Your task to perform on an android device: open device folders in google photos Image 0: 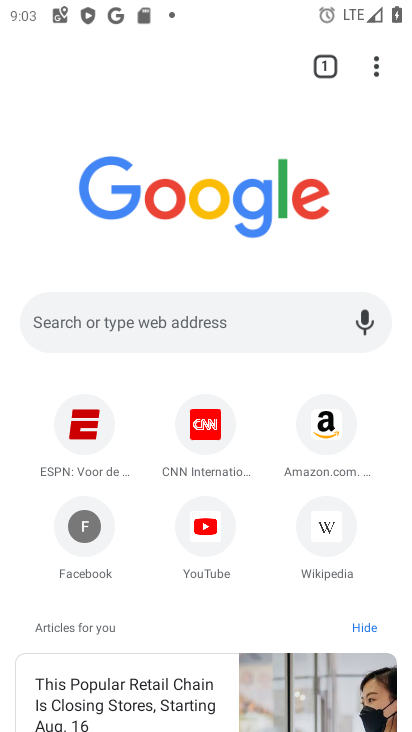
Step 0: press home button
Your task to perform on an android device: open device folders in google photos Image 1: 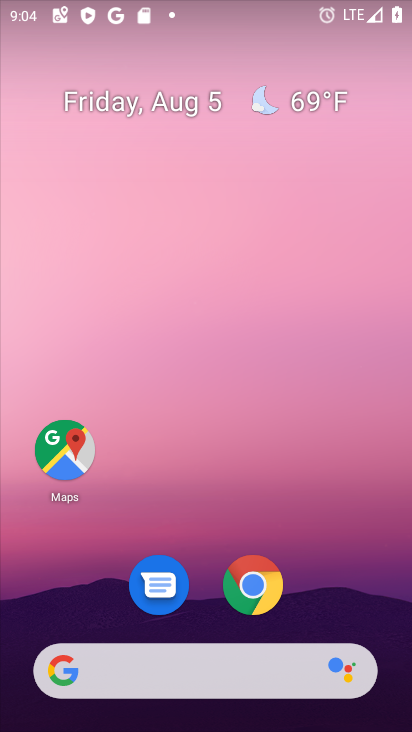
Step 1: drag from (214, 502) to (290, 8)
Your task to perform on an android device: open device folders in google photos Image 2: 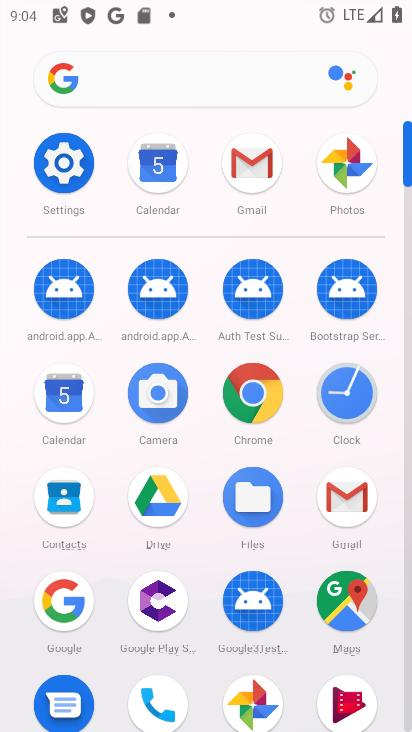
Step 2: click (345, 163)
Your task to perform on an android device: open device folders in google photos Image 3: 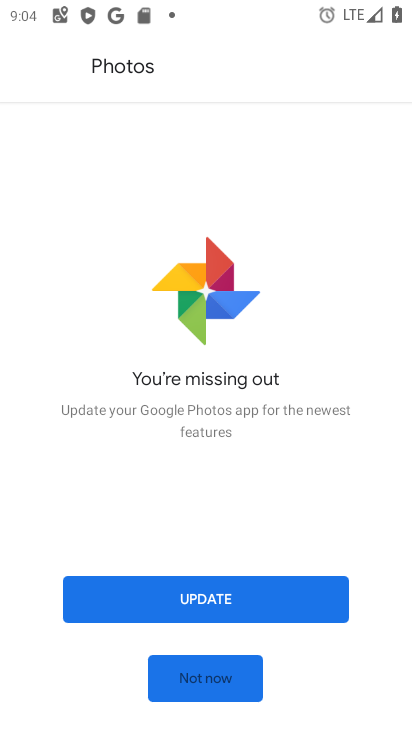
Step 3: click (253, 680)
Your task to perform on an android device: open device folders in google photos Image 4: 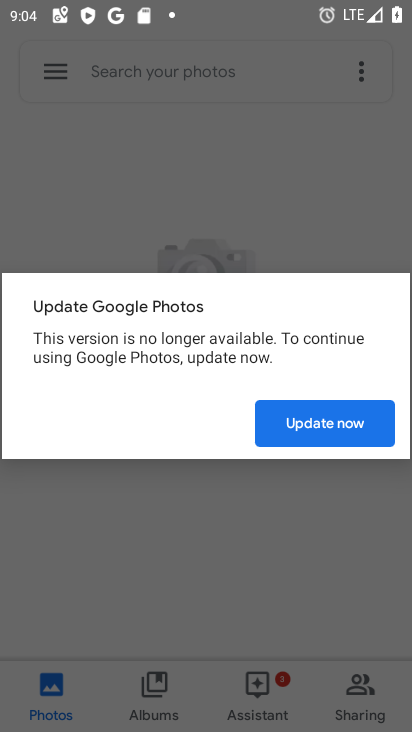
Step 4: click (312, 415)
Your task to perform on an android device: open device folders in google photos Image 5: 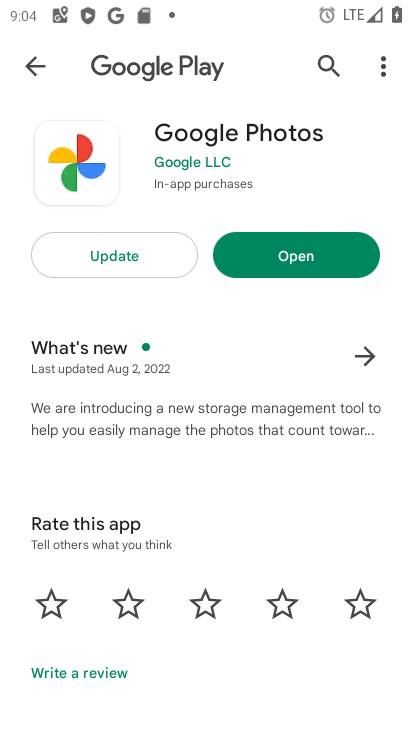
Step 5: click (303, 256)
Your task to perform on an android device: open device folders in google photos Image 6: 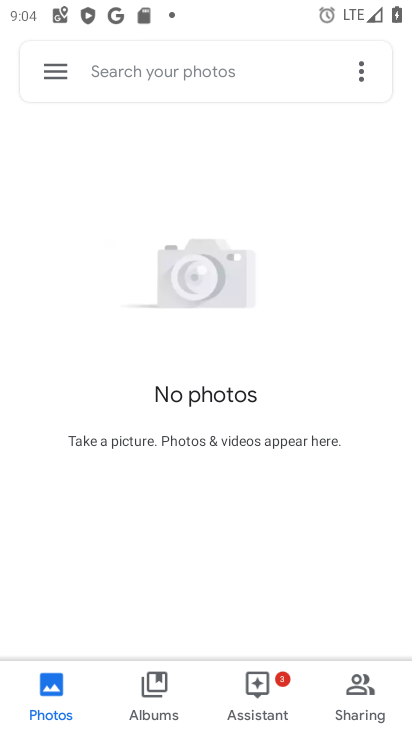
Step 6: click (51, 71)
Your task to perform on an android device: open device folders in google photos Image 7: 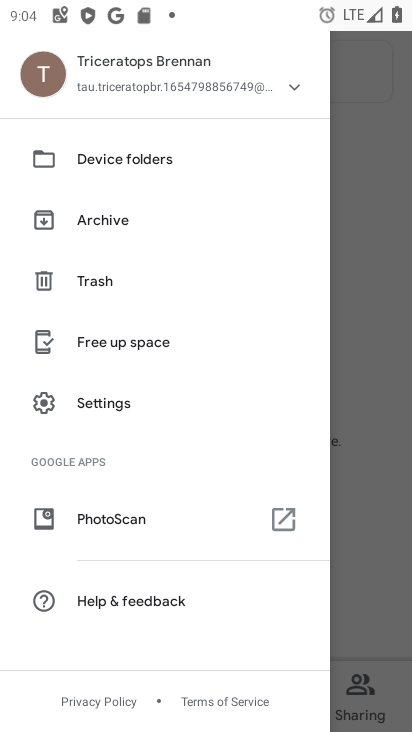
Step 7: click (116, 162)
Your task to perform on an android device: open device folders in google photos Image 8: 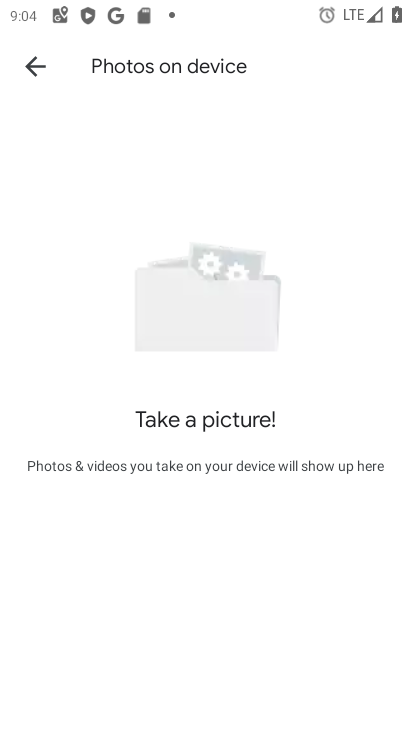
Step 8: task complete